Your task to perform on an android device: What's the weather going to be tomorrow? Image 0: 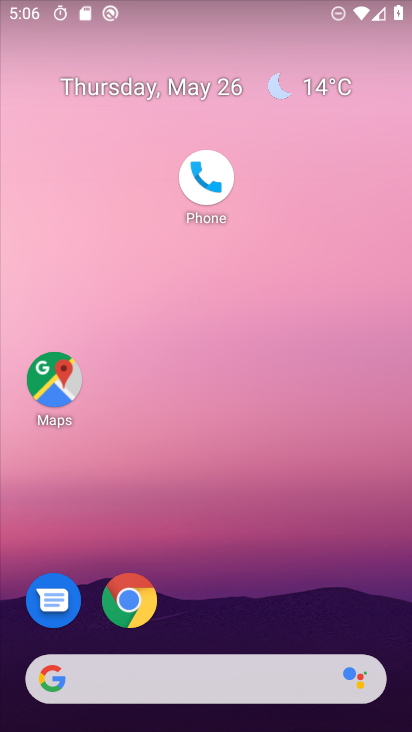
Step 0: click (338, 88)
Your task to perform on an android device: What's the weather going to be tomorrow? Image 1: 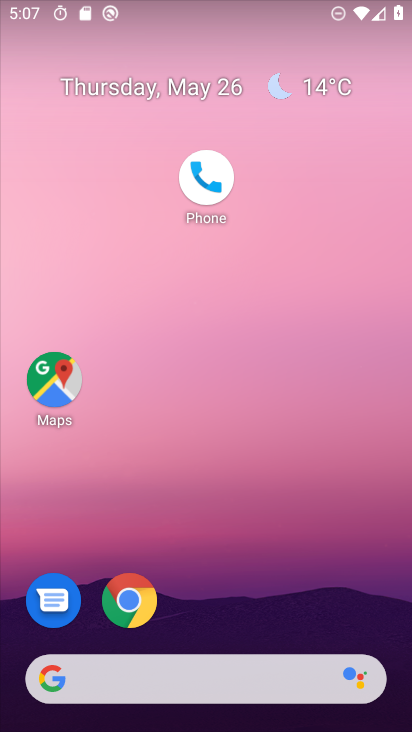
Step 1: click (338, 88)
Your task to perform on an android device: What's the weather going to be tomorrow? Image 2: 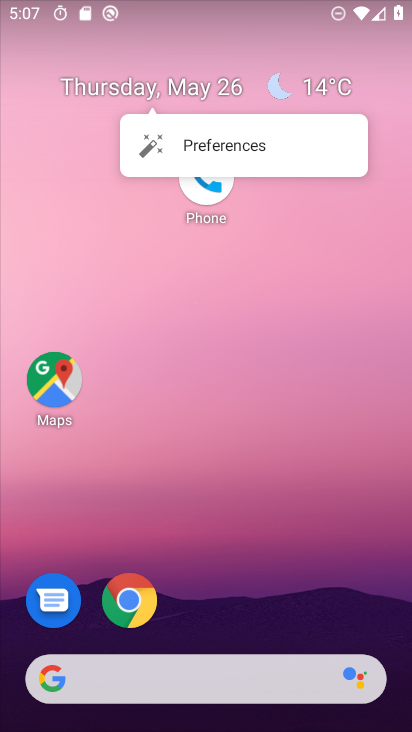
Step 2: click (335, 86)
Your task to perform on an android device: What's the weather going to be tomorrow? Image 3: 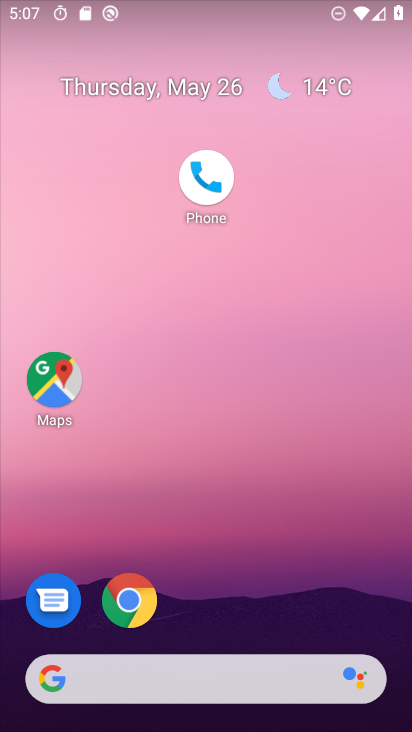
Step 3: click (335, 86)
Your task to perform on an android device: What's the weather going to be tomorrow? Image 4: 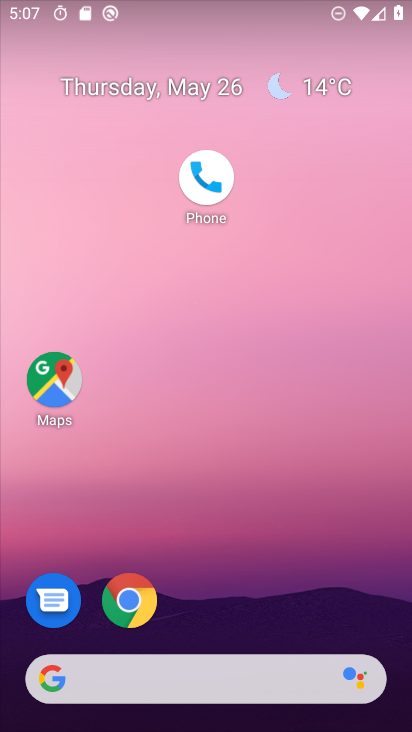
Step 4: click (335, 86)
Your task to perform on an android device: What's the weather going to be tomorrow? Image 5: 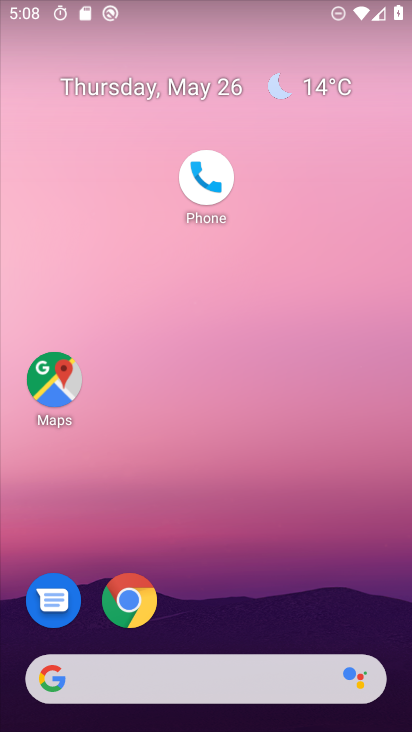
Step 5: click (316, 84)
Your task to perform on an android device: What's the weather going to be tomorrow? Image 6: 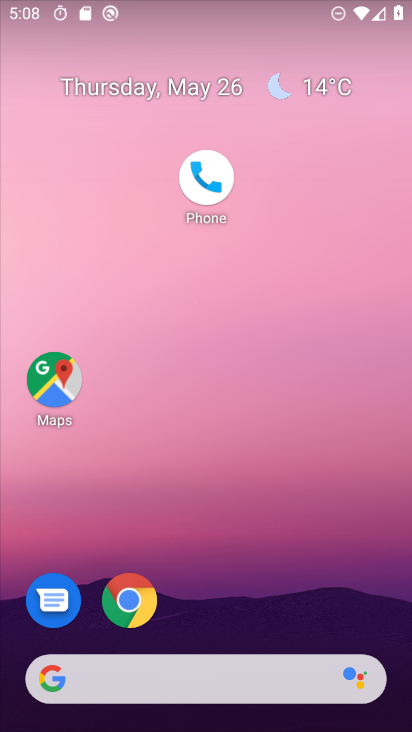
Step 6: click (322, 95)
Your task to perform on an android device: What's the weather going to be tomorrow? Image 7: 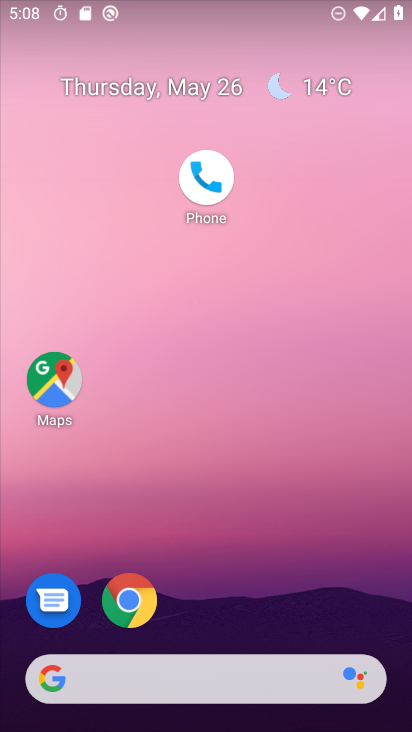
Step 7: click (188, 682)
Your task to perform on an android device: What's the weather going to be tomorrow? Image 8: 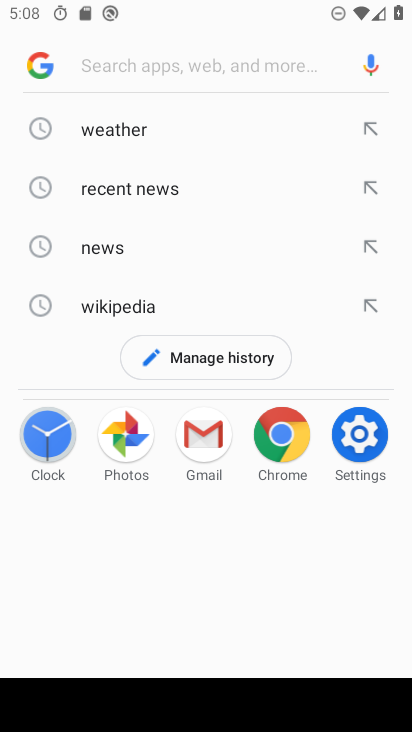
Step 8: click (188, 682)
Your task to perform on an android device: What's the weather going to be tomorrow? Image 9: 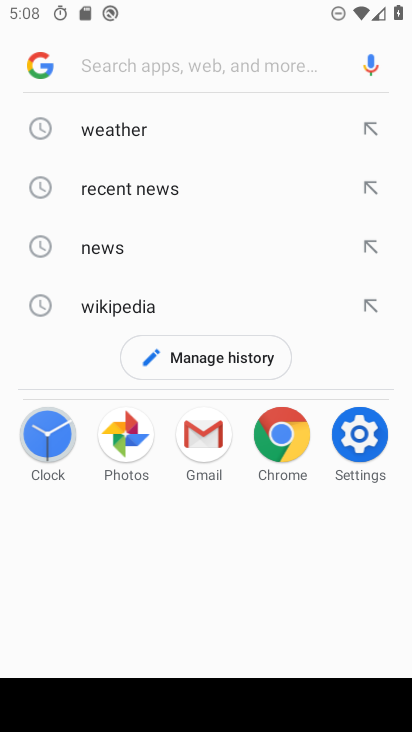
Step 9: click (109, 125)
Your task to perform on an android device: What's the weather going to be tomorrow? Image 10: 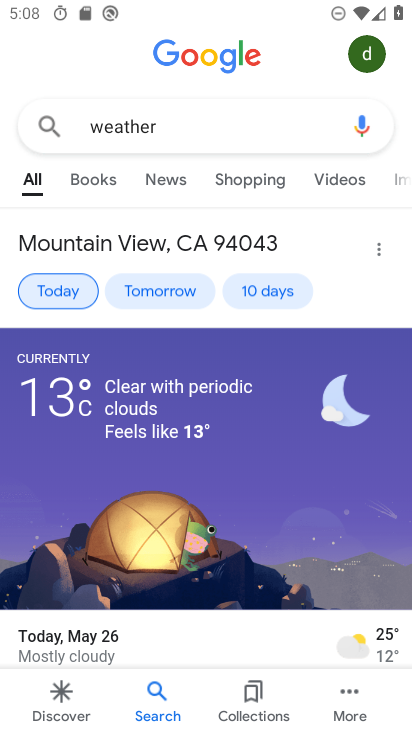
Step 10: click (158, 290)
Your task to perform on an android device: What's the weather going to be tomorrow? Image 11: 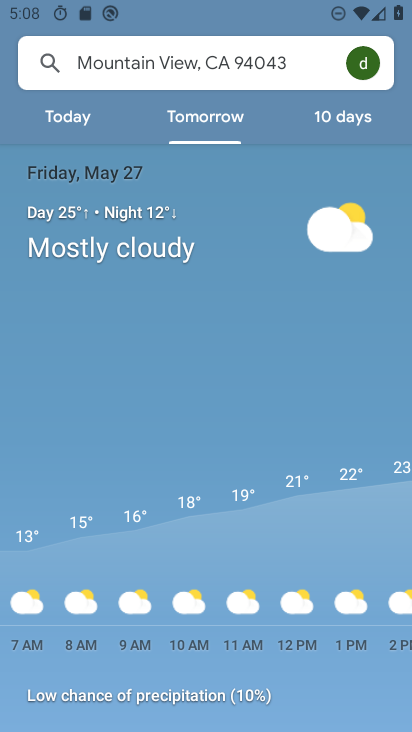
Step 11: task complete